Your task to perform on an android device: Search for the best books of all time on Goodreads Image 0: 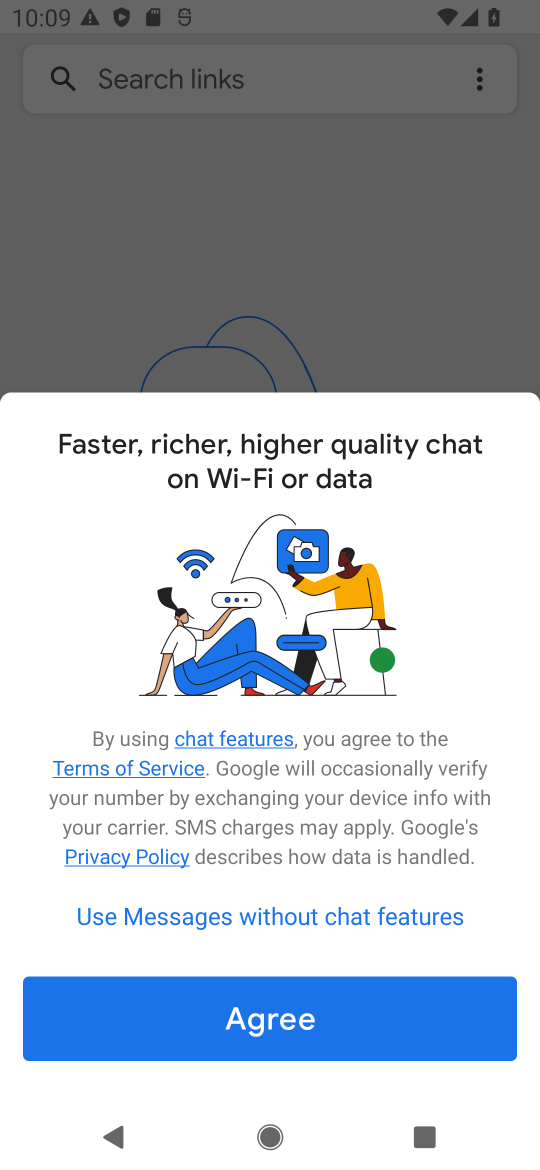
Step 0: press home button
Your task to perform on an android device: Search for the best books of all time on Goodreads Image 1: 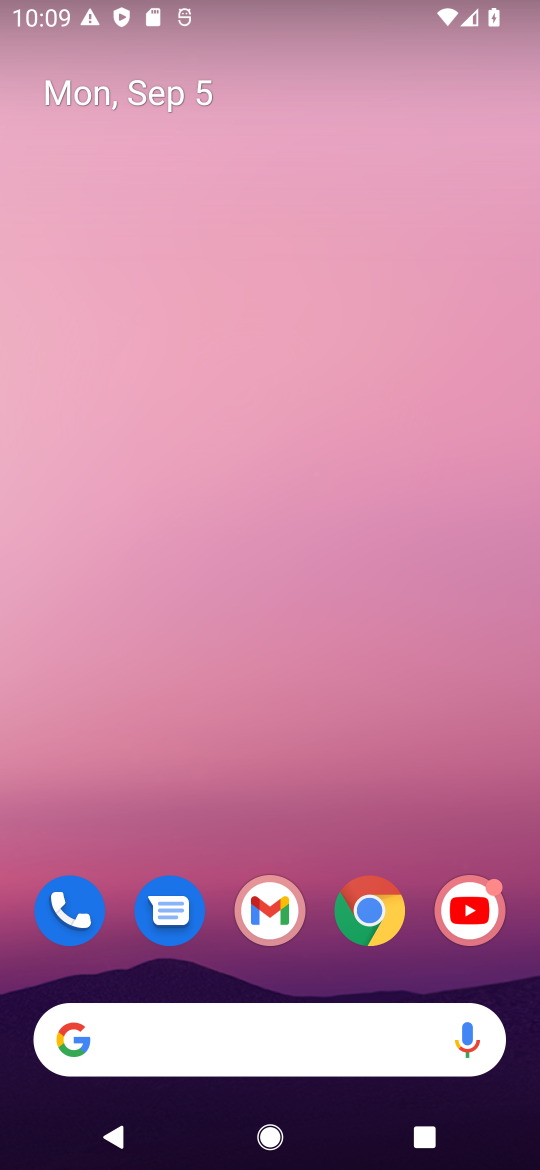
Step 1: click (374, 898)
Your task to perform on an android device: Search for the best books of all time on Goodreads Image 2: 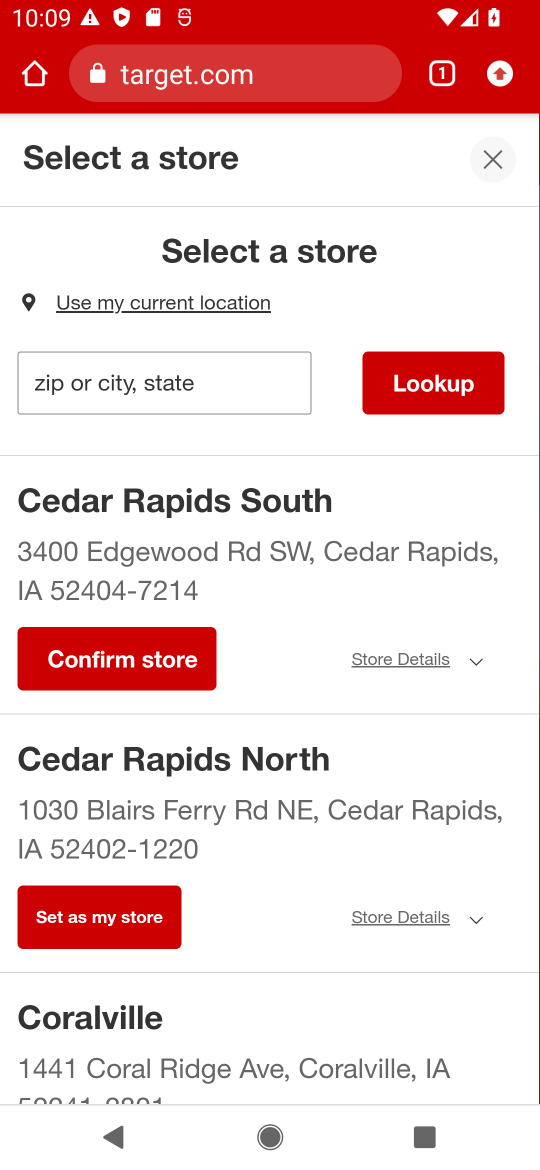
Step 2: click (233, 102)
Your task to perform on an android device: Search for the best books of all time on Goodreads Image 3: 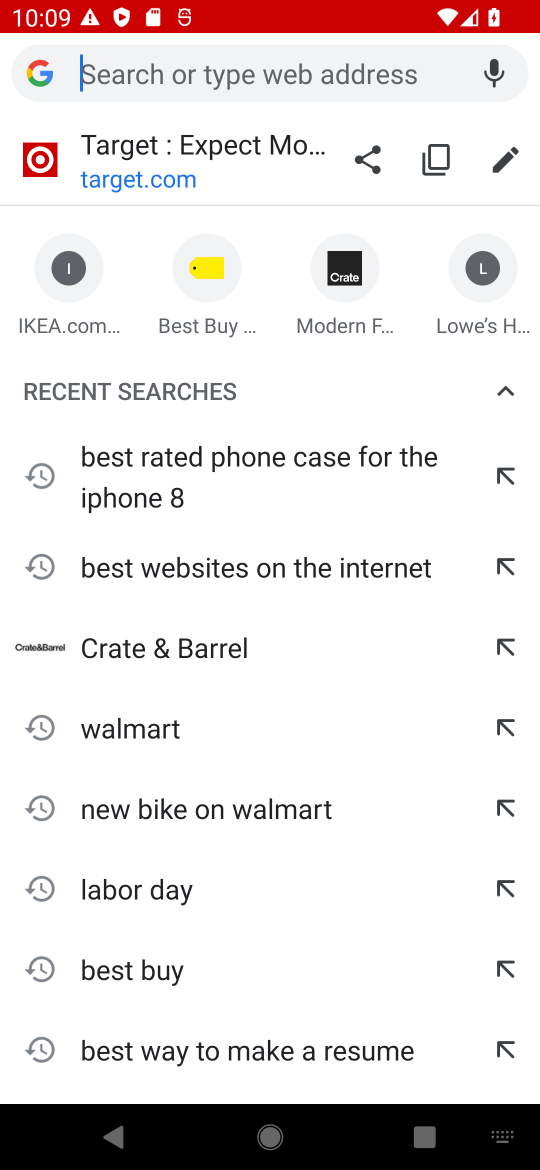
Step 3: type "goodreads"
Your task to perform on an android device: Search for the best books of all time on Goodreads Image 4: 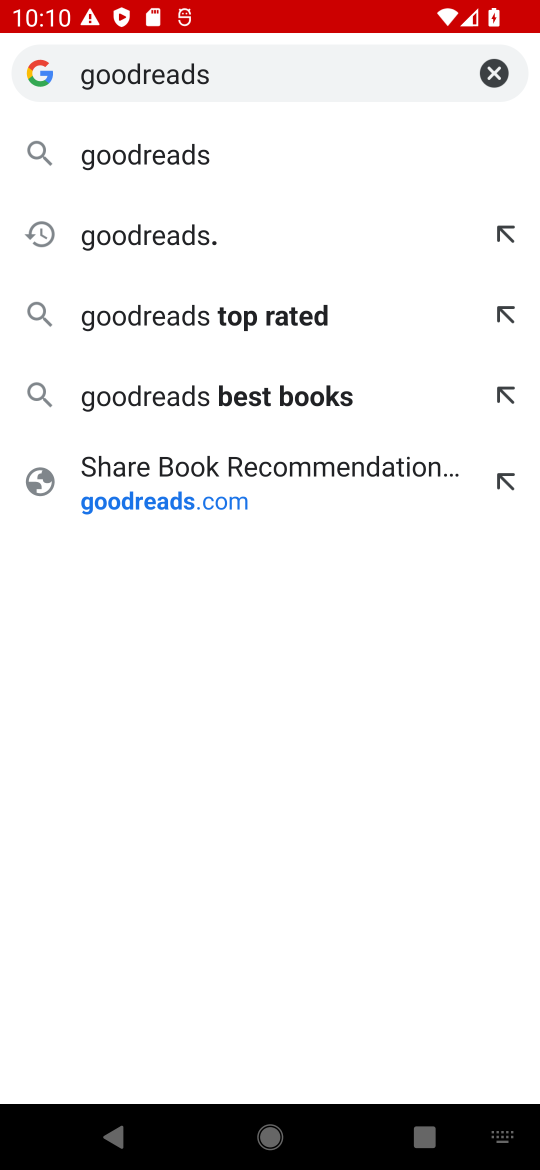
Step 4: click (324, 402)
Your task to perform on an android device: Search for the best books of all time on Goodreads Image 5: 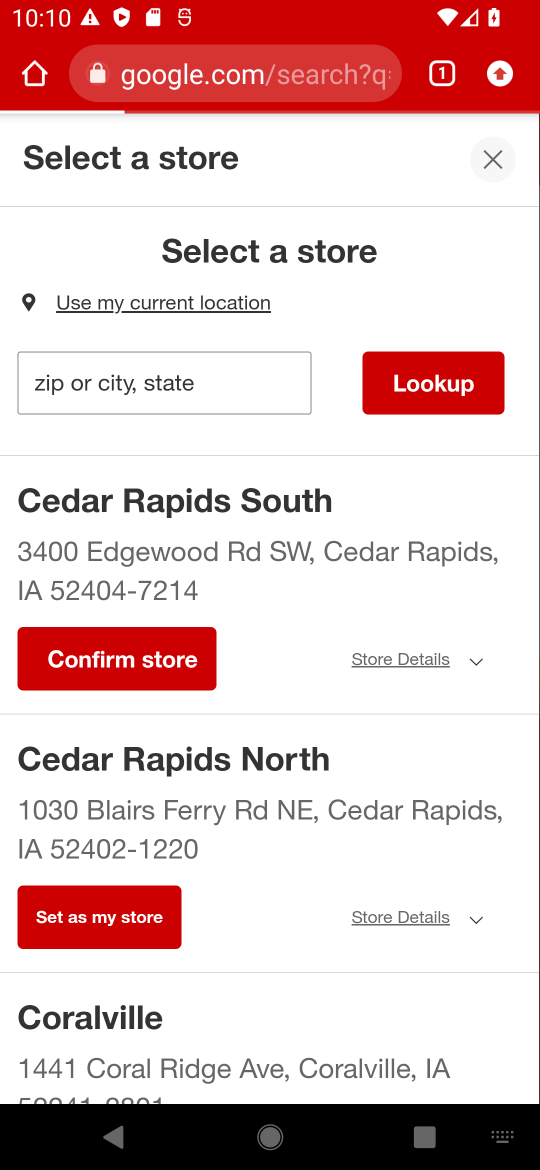
Step 5: click (324, 402)
Your task to perform on an android device: Search for the best books of all time on Goodreads Image 6: 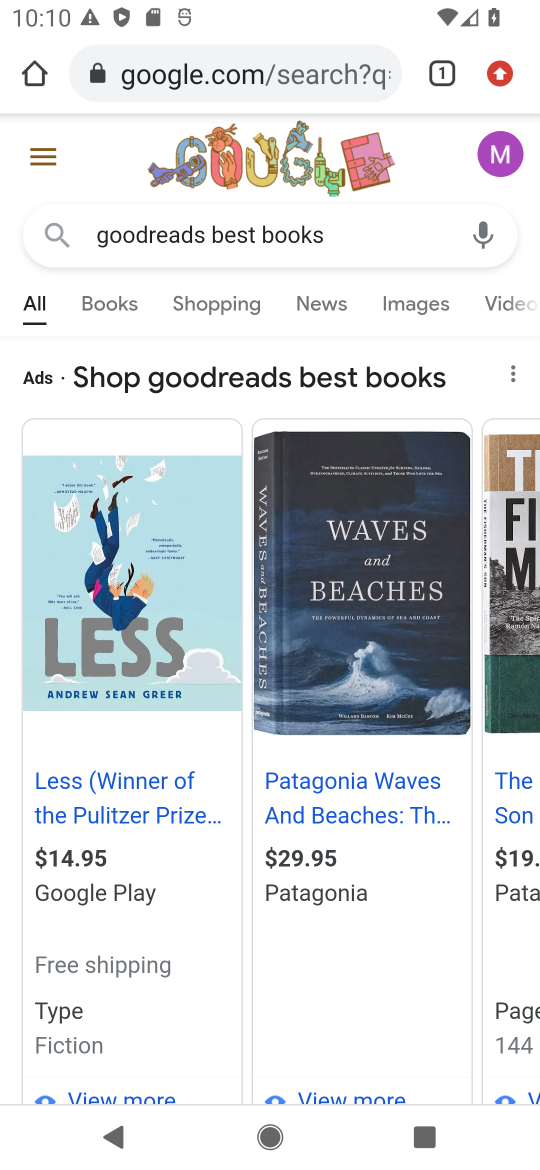
Step 6: drag from (246, 926) to (362, 195)
Your task to perform on an android device: Search for the best books of all time on Goodreads Image 7: 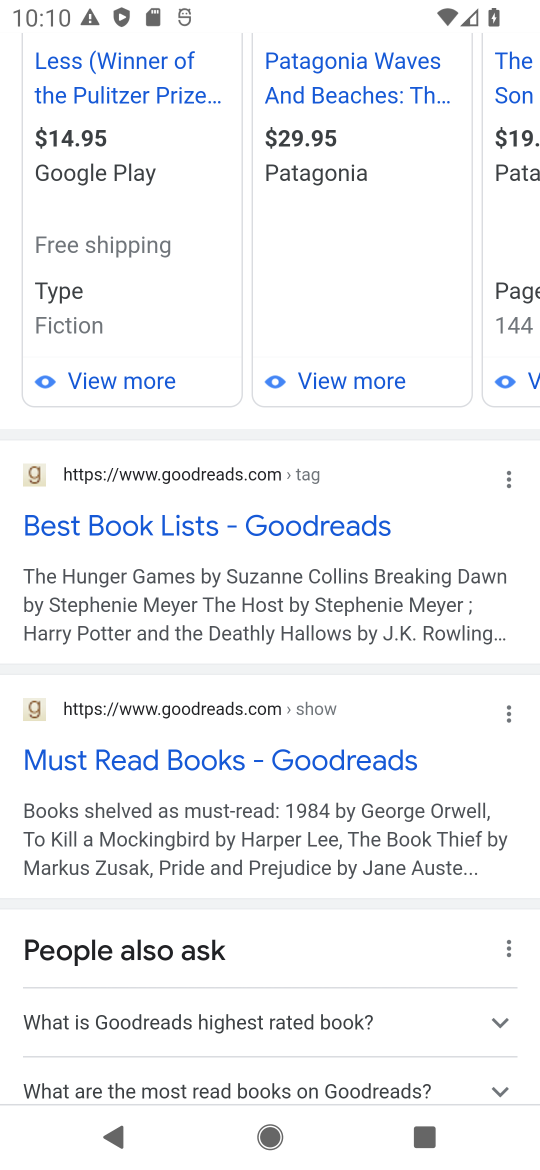
Step 7: click (285, 535)
Your task to perform on an android device: Search for the best books of all time on Goodreads Image 8: 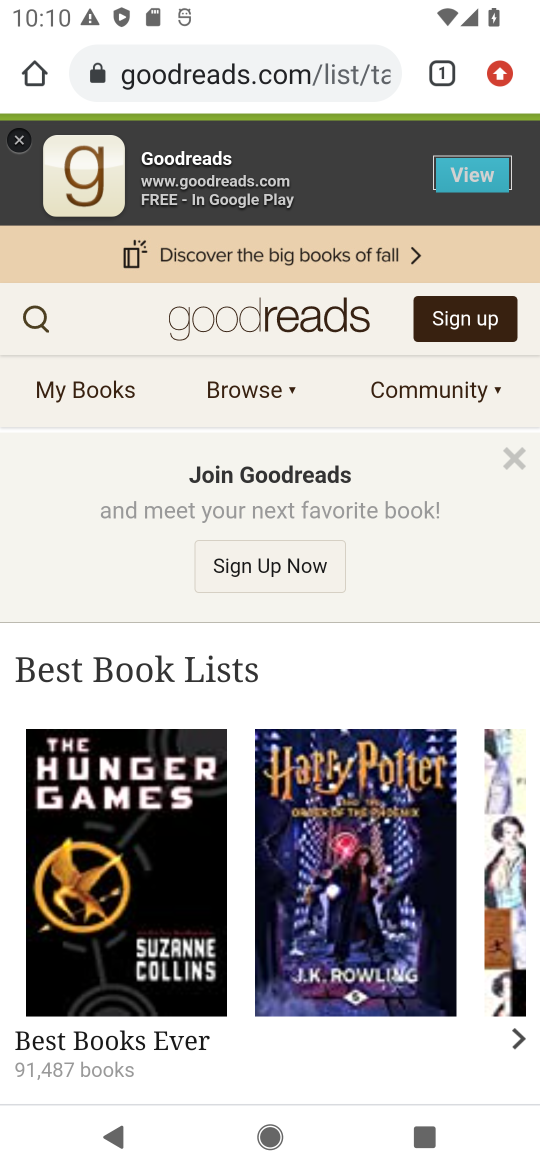
Step 8: task complete